Your task to perform on an android device: Open location settings Image 0: 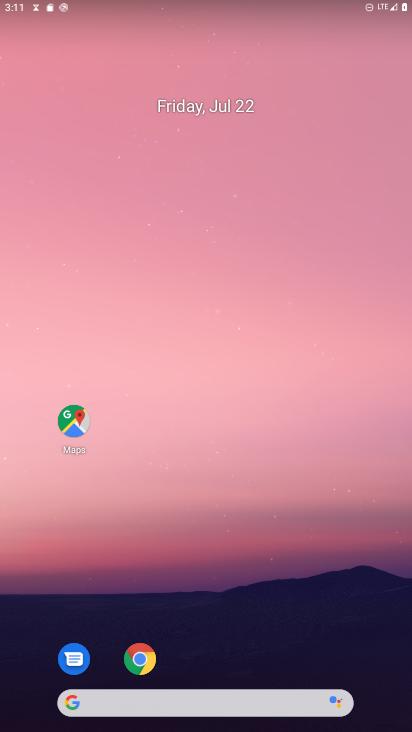
Step 0: click (285, 18)
Your task to perform on an android device: Open location settings Image 1: 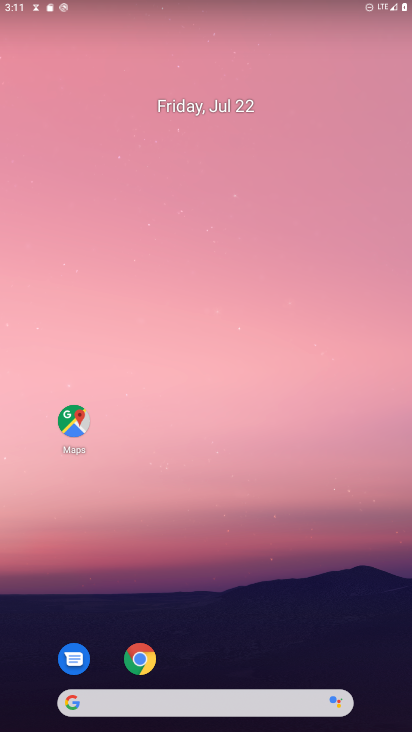
Step 1: drag from (277, 605) to (344, 0)
Your task to perform on an android device: Open location settings Image 2: 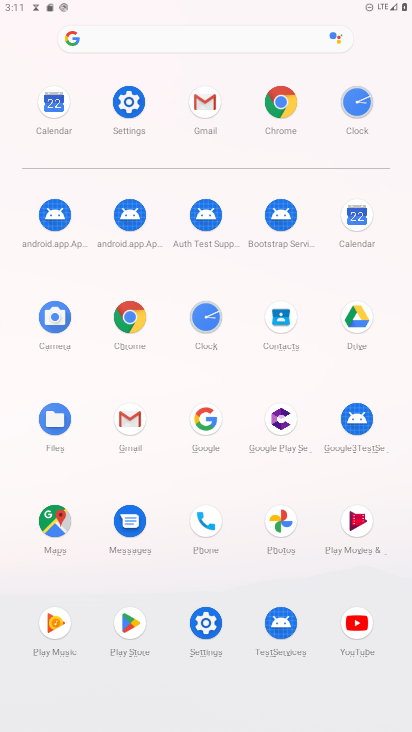
Step 2: click (134, 107)
Your task to perform on an android device: Open location settings Image 3: 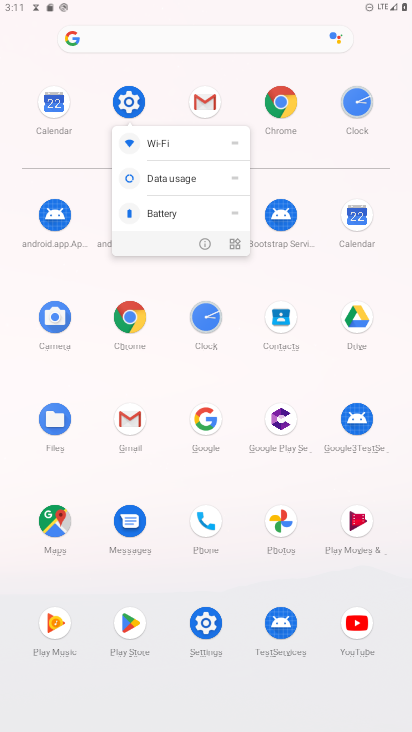
Step 3: click (136, 101)
Your task to perform on an android device: Open location settings Image 4: 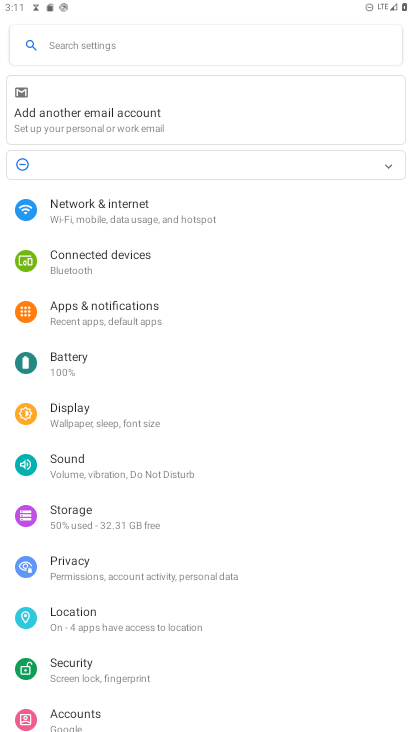
Step 4: click (100, 609)
Your task to perform on an android device: Open location settings Image 5: 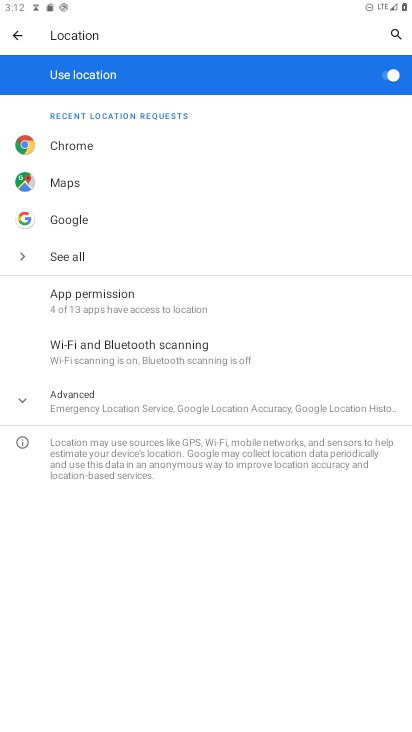
Step 5: task complete